Your task to perform on an android device: clear history in the chrome app Image 0: 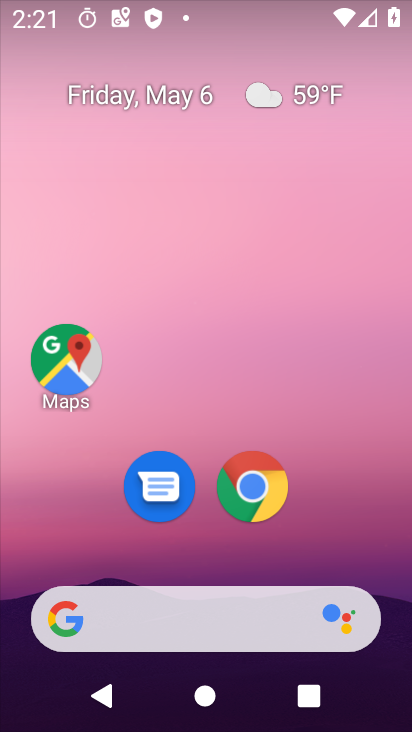
Step 0: click (244, 487)
Your task to perform on an android device: clear history in the chrome app Image 1: 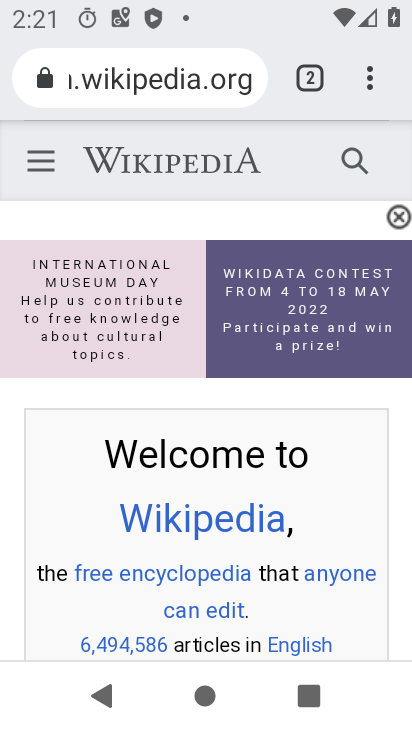
Step 1: click (365, 80)
Your task to perform on an android device: clear history in the chrome app Image 2: 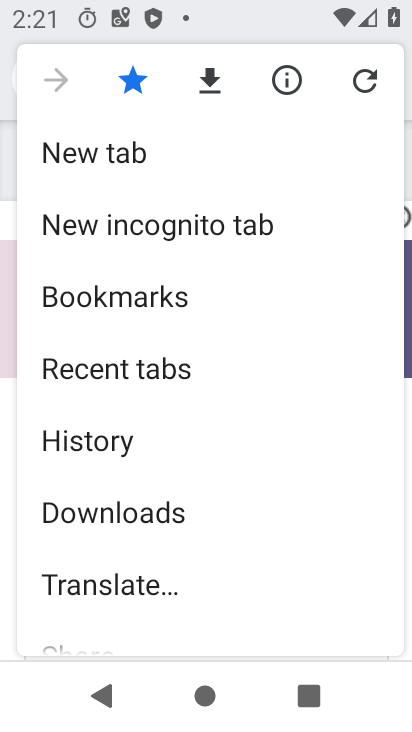
Step 2: click (130, 437)
Your task to perform on an android device: clear history in the chrome app Image 3: 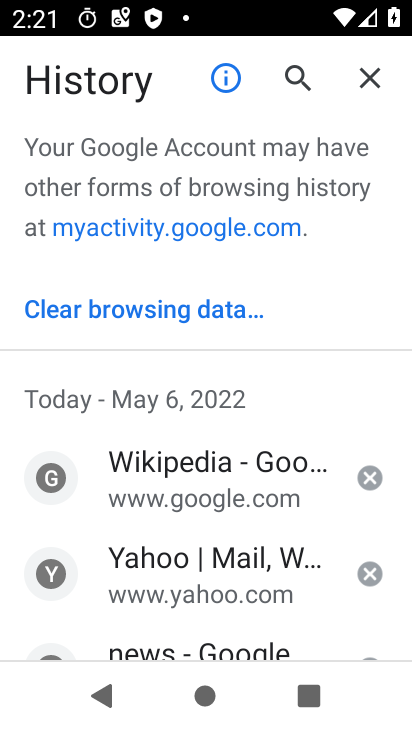
Step 3: click (138, 310)
Your task to perform on an android device: clear history in the chrome app Image 4: 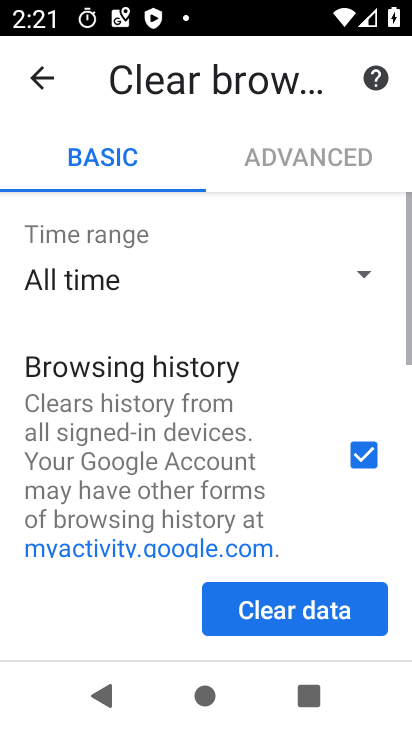
Step 4: click (307, 600)
Your task to perform on an android device: clear history in the chrome app Image 5: 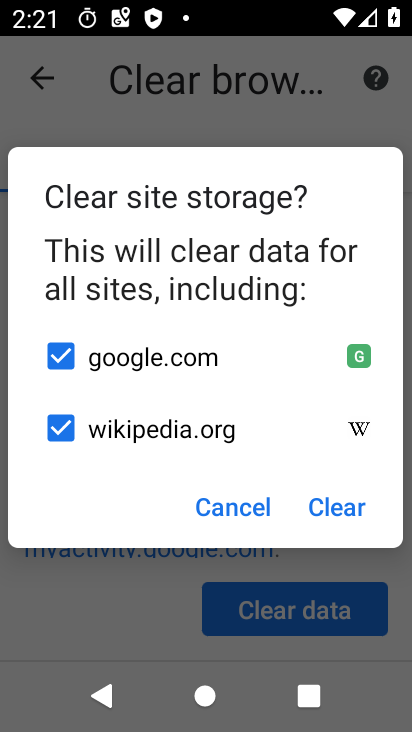
Step 5: click (328, 505)
Your task to perform on an android device: clear history in the chrome app Image 6: 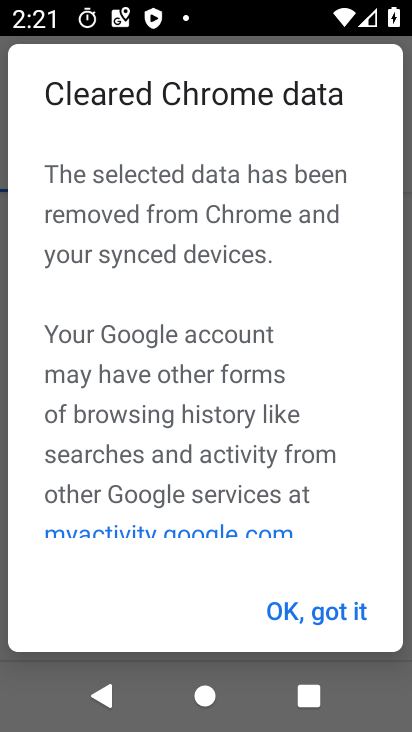
Step 6: click (332, 601)
Your task to perform on an android device: clear history in the chrome app Image 7: 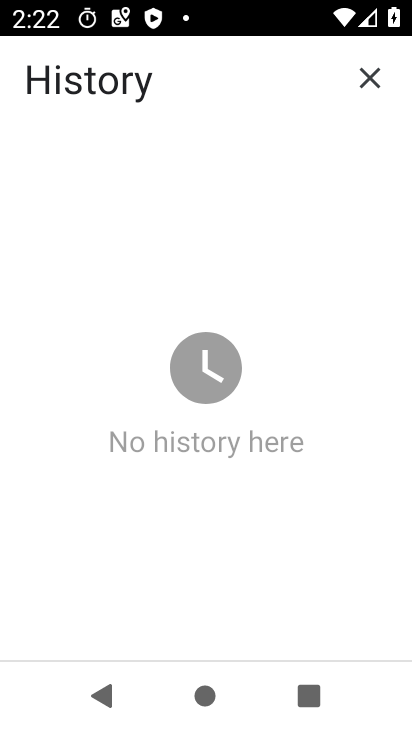
Step 7: task complete